Your task to perform on an android device: delete the emails in spam in the gmail app Image 0: 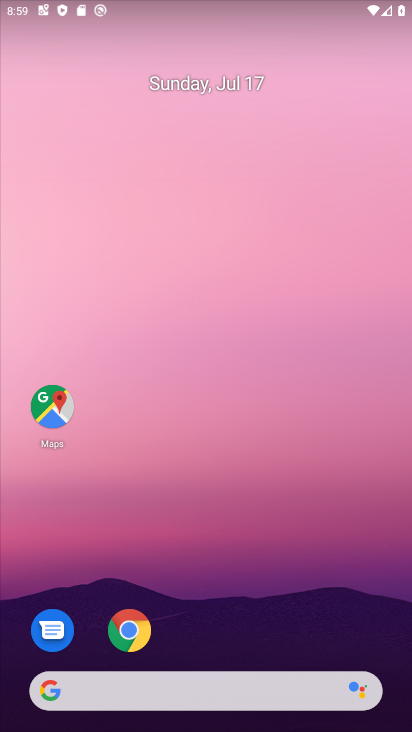
Step 0: drag from (332, 583) to (324, 144)
Your task to perform on an android device: delete the emails in spam in the gmail app Image 1: 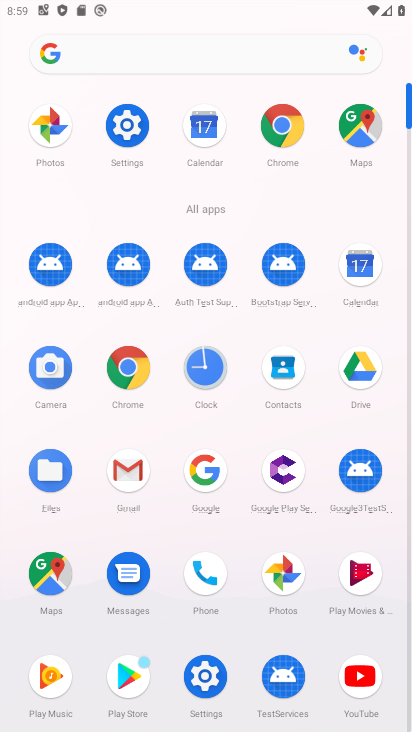
Step 1: click (128, 473)
Your task to perform on an android device: delete the emails in spam in the gmail app Image 2: 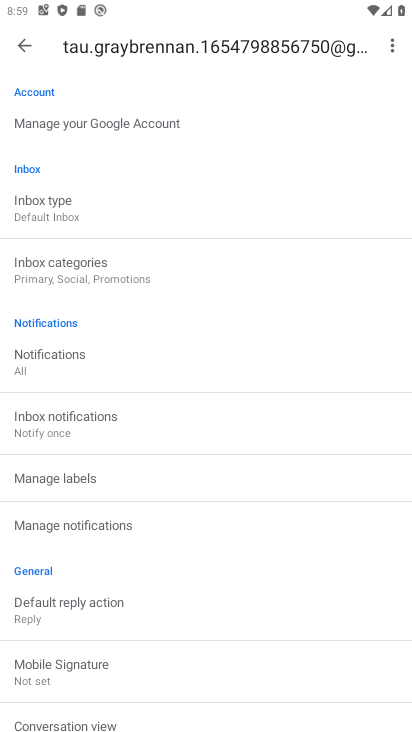
Step 2: drag from (318, 508) to (325, 383)
Your task to perform on an android device: delete the emails in spam in the gmail app Image 3: 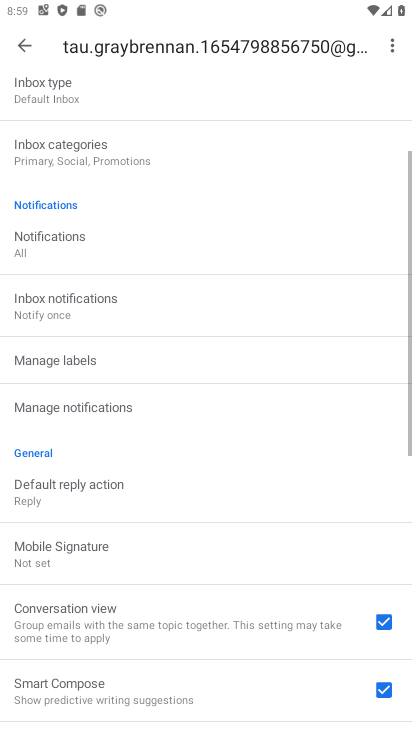
Step 3: drag from (343, 466) to (346, 347)
Your task to perform on an android device: delete the emails in spam in the gmail app Image 4: 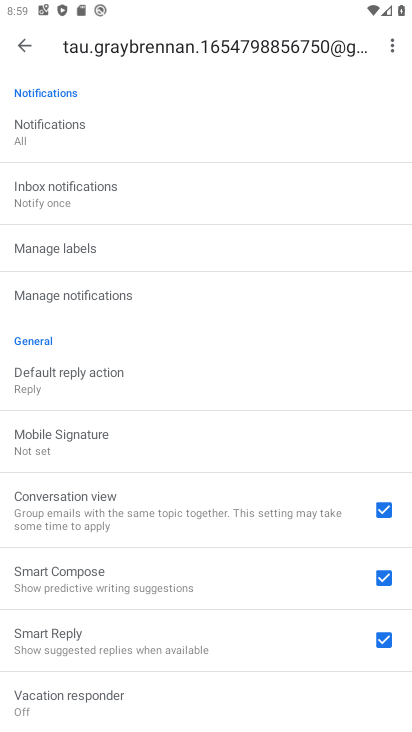
Step 4: drag from (300, 475) to (300, 333)
Your task to perform on an android device: delete the emails in spam in the gmail app Image 5: 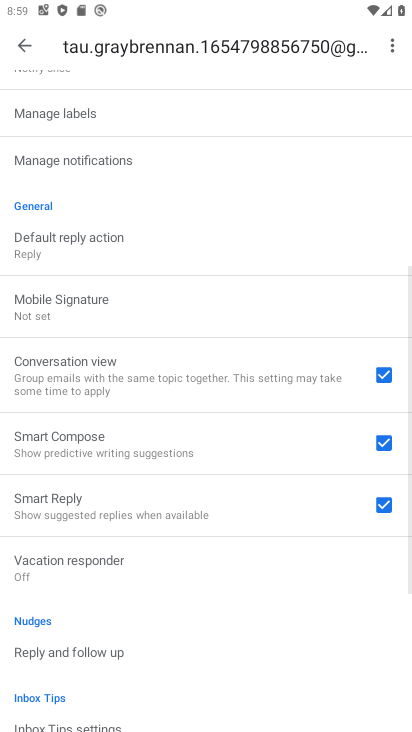
Step 5: drag from (286, 475) to (297, 339)
Your task to perform on an android device: delete the emails in spam in the gmail app Image 6: 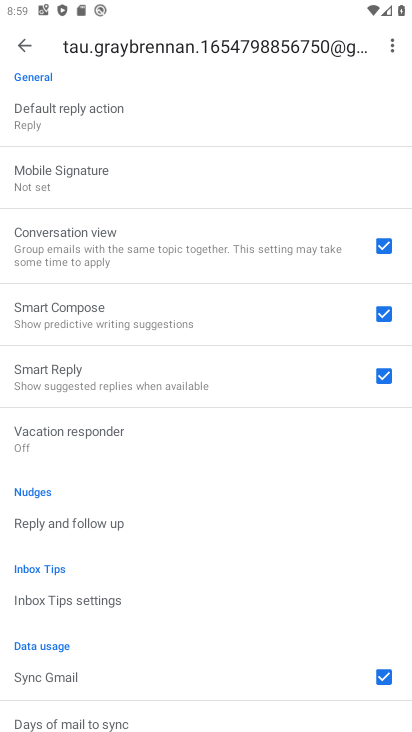
Step 6: drag from (303, 181) to (308, 318)
Your task to perform on an android device: delete the emails in spam in the gmail app Image 7: 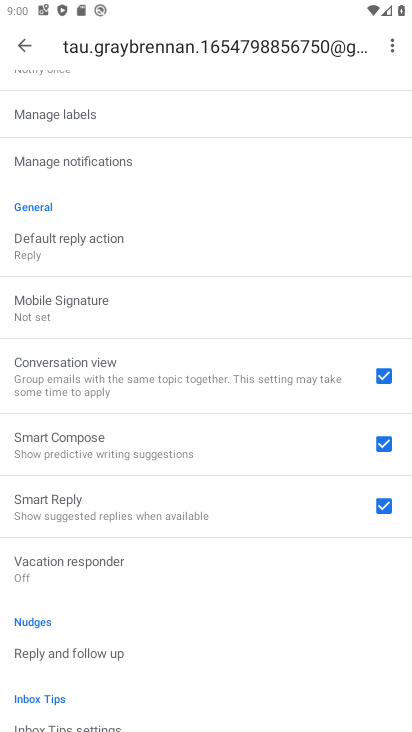
Step 7: press back button
Your task to perform on an android device: delete the emails in spam in the gmail app Image 8: 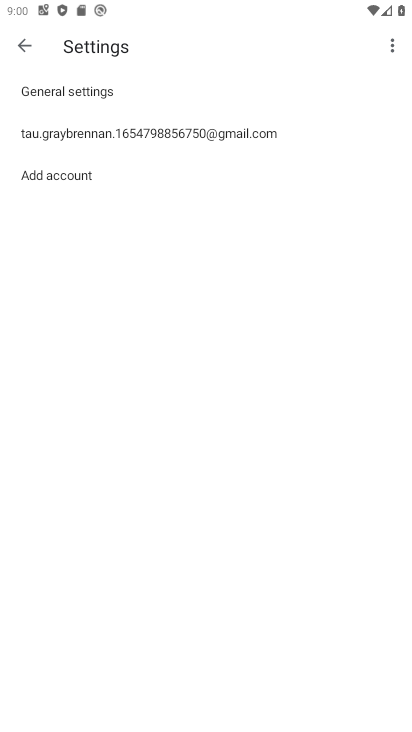
Step 8: press back button
Your task to perform on an android device: delete the emails in spam in the gmail app Image 9: 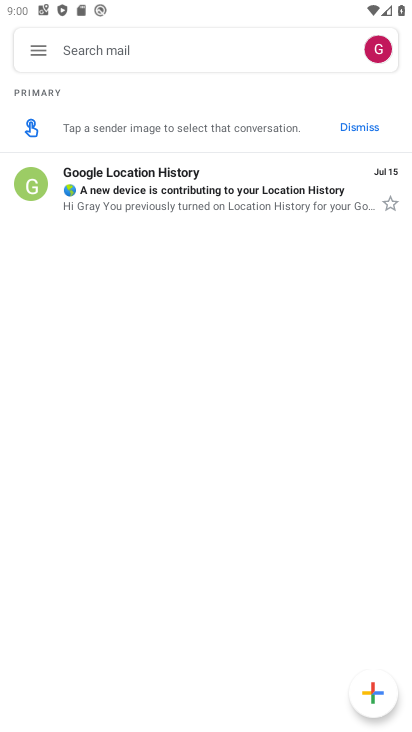
Step 9: click (47, 50)
Your task to perform on an android device: delete the emails in spam in the gmail app Image 10: 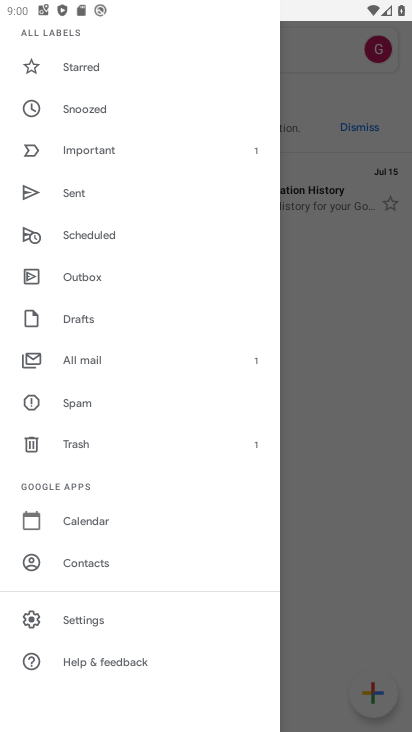
Step 10: click (113, 402)
Your task to perform on an android device: delete the emails in spam in the gmail app Image 11: 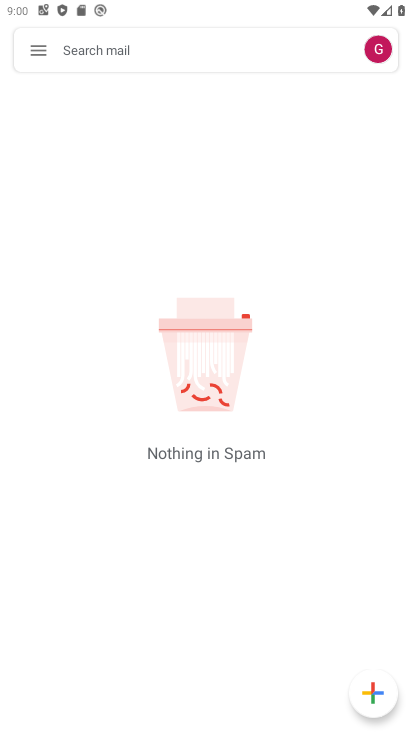
Step 11: task complete